Your task to perform on an android device: change the clock display to show seconds Image 0: 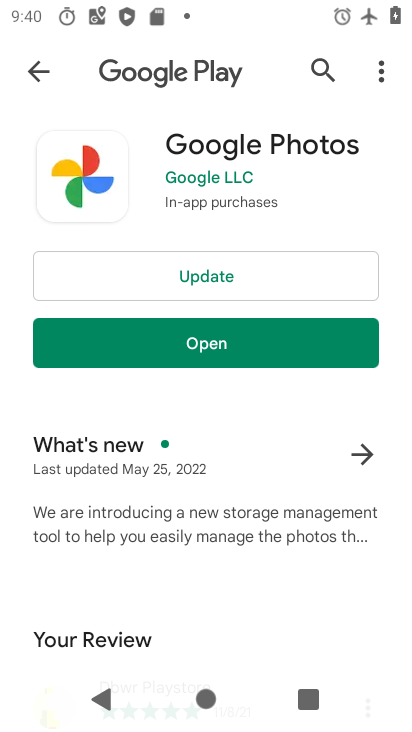
Step 0: press home button
Your task to perform on an android device: change the clock display to show seconds Image 1: 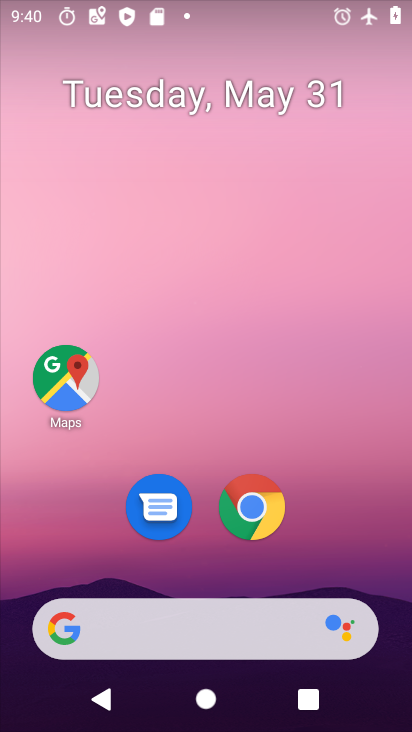
Step 1: drag from (341, 585) to (322, 20)
Your task to perform on an android device: change the clock display to show seconds Image 2: 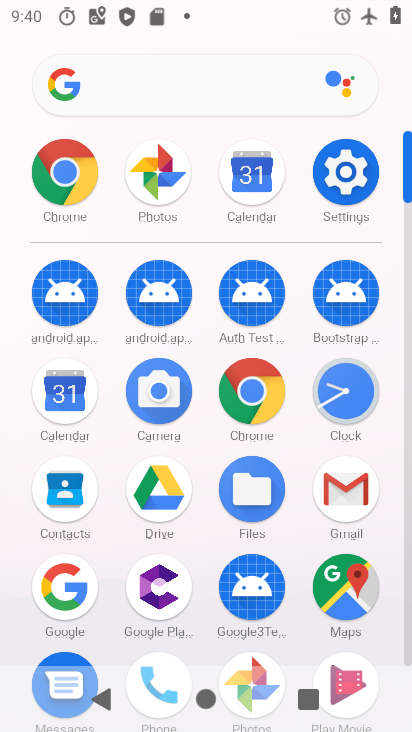
Step 2: click (333, 387)
Your task to perform on an android device: change the clock display to show seconds Image 3: 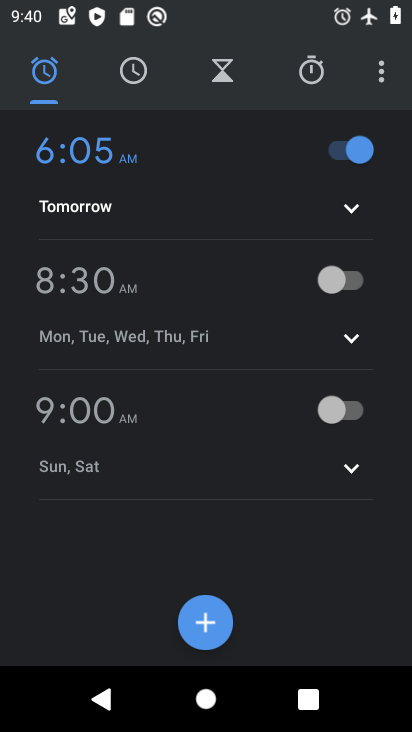
Step 3: click (377, 67)
Your task to perform on an android device: change the clock display to show seconds Image 4: 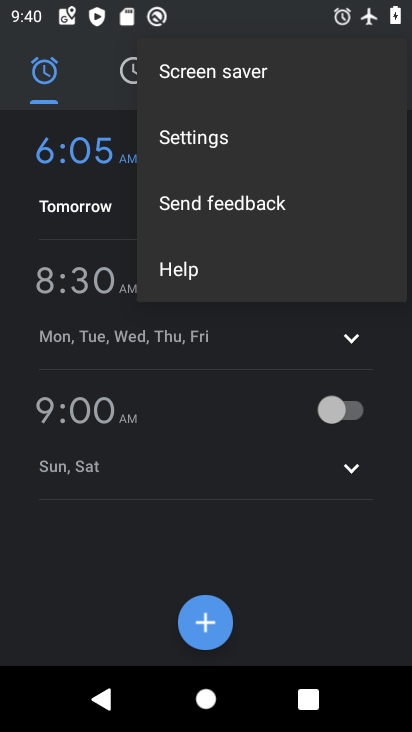
Step 4: click (204, 136)
Your task to perform on an android device: change the clock display to show seconds Image 5: 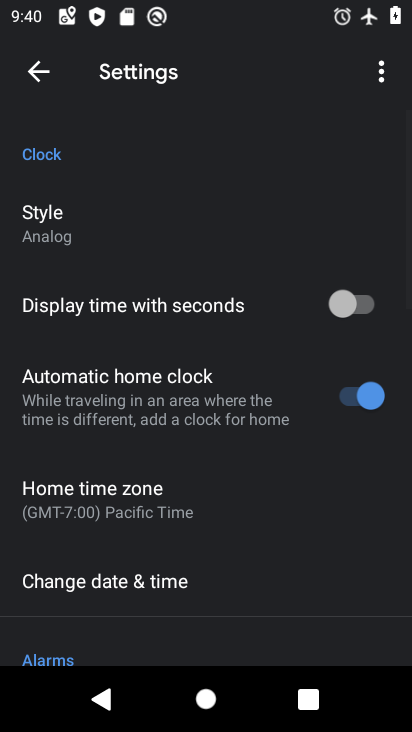
Step 5: click (325, 311)
Your task to perform on an android device: change the clock display to show seconds Image 6: 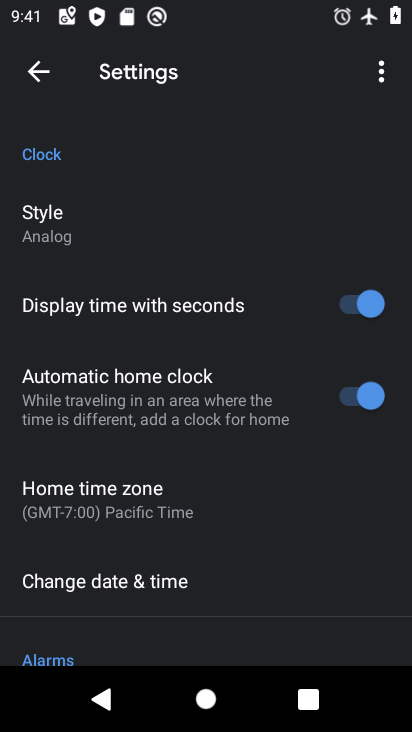
Step 6: task complete